Your task to perform on an android device: Open Youtube and go to the subscriptions tab Image 0: 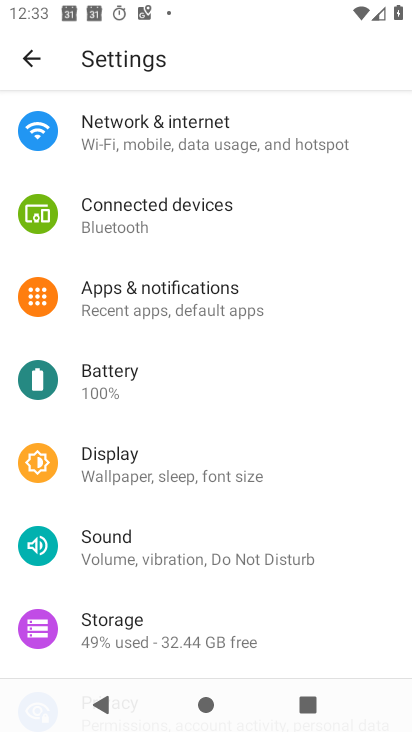
Step 0: press home button
Your task to perform on an android device: Open Youtube and go to the subscriptions tab Image 1: 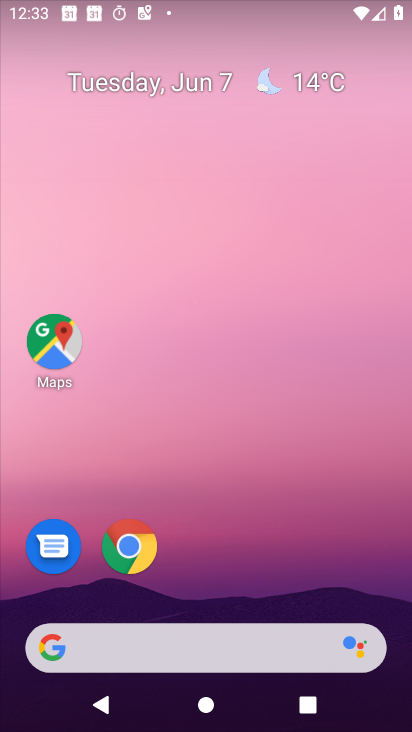
Step 1: drag from (202, 564) to (295, 133)
Your task to perform on an android device: Open Youtube and go to the subscriptions tab Image 2: 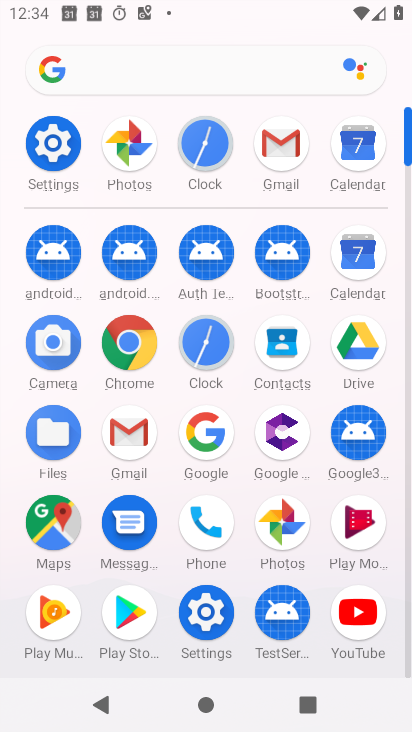
Step 2: drag from (230, 574) to (268, 356)
Your task to perform on an android device: Open Youtube and go to the subscriptions tab Image 3: 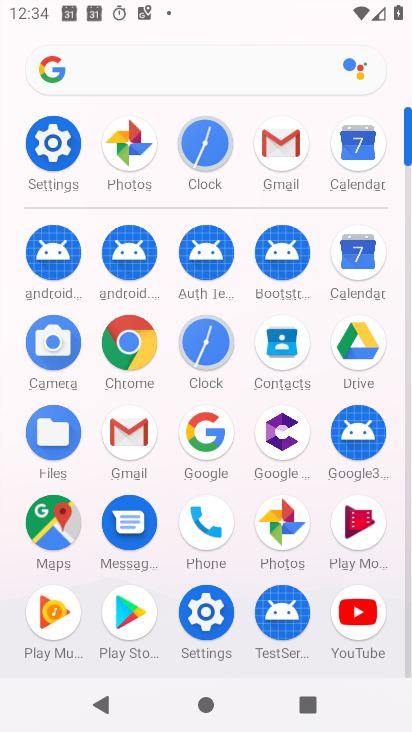
Step 3: click (365, 634)
Your task to perform on an android device: Open Youtube and go to the subscriptions tab Image 4: 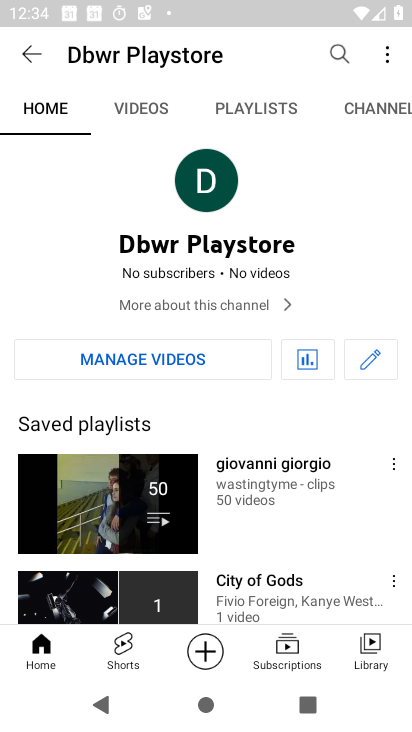
Step 4: click (286, 646)
Your task to perform on an android device: Open Youtube and go to the subscriptions tab Image 5: 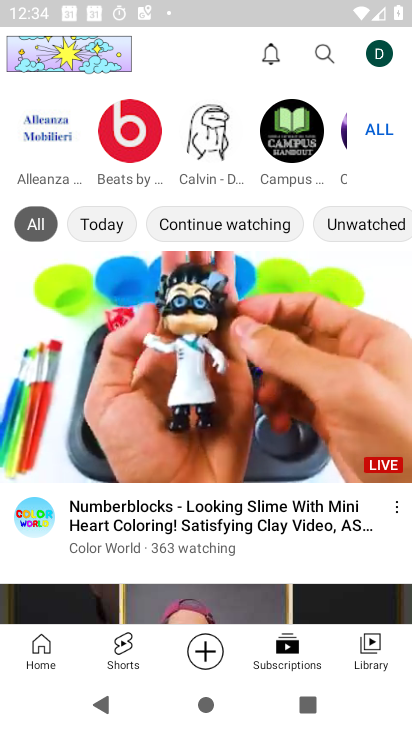
Step 5: task complete